Your task to perform on an android device: Open settings on Google Maps Image 0: 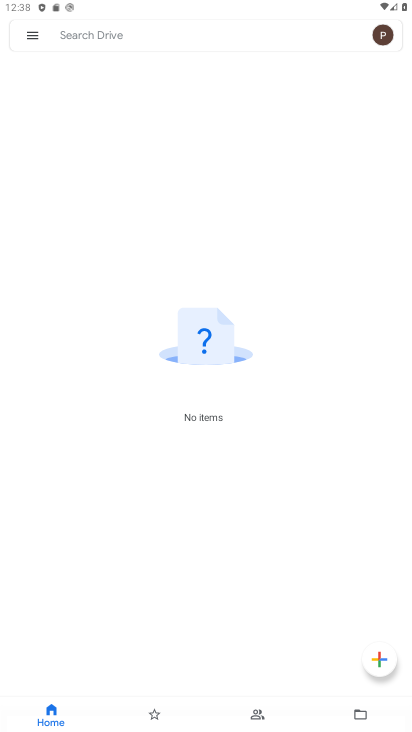
Step 0: press home button
Your task to perform on an android device: Open settings on Google Maps Image 1: 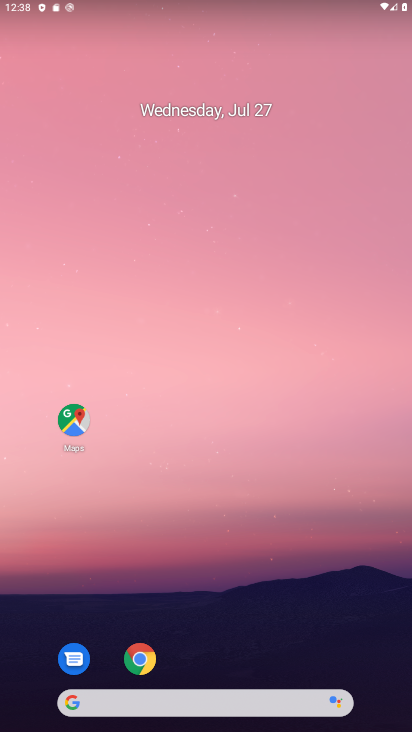
Step 1: drag from (317, 560) to (280, 63)
Your task to perform on an android device: Open settings on Google Maps Image 2: 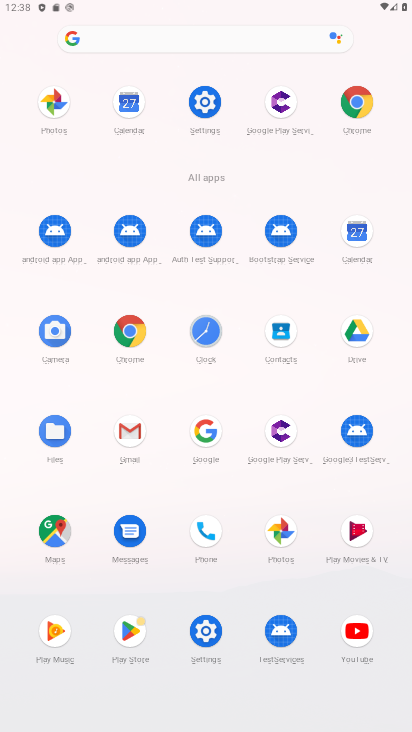
Step 2: click (52, 536)
Your task to perform on an android device: Open settings on Google Maps Image 3: 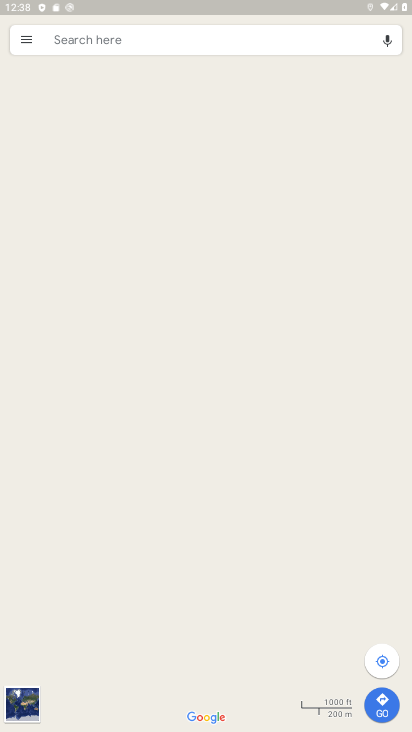
Step 3: click (25, 42)
Your task to perform on an android device: Open settings on Google Maps Image 4: 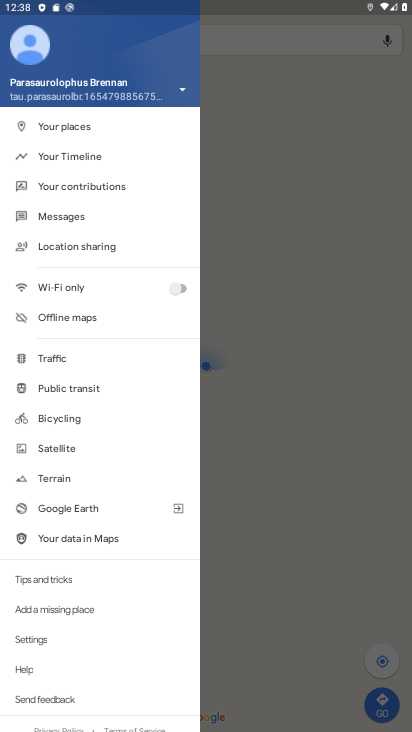
Step 4: click (18, 636)
Your task to perform on an android device: Open settings on Google Maps Image 5: 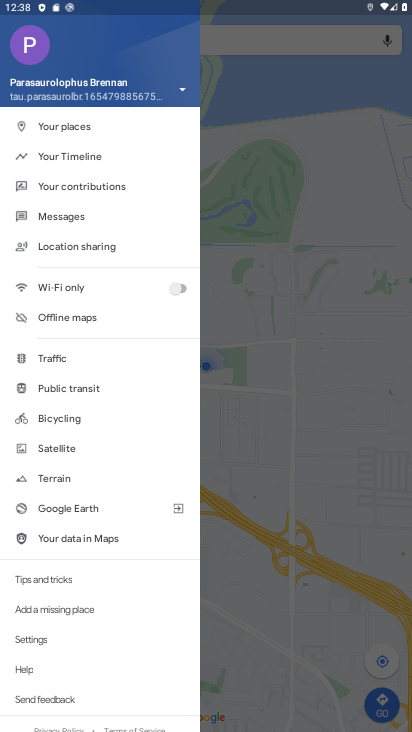
Step 5: click (34, 644)
Your task to perform on an android device: Open settings on Google Maps Image 6: 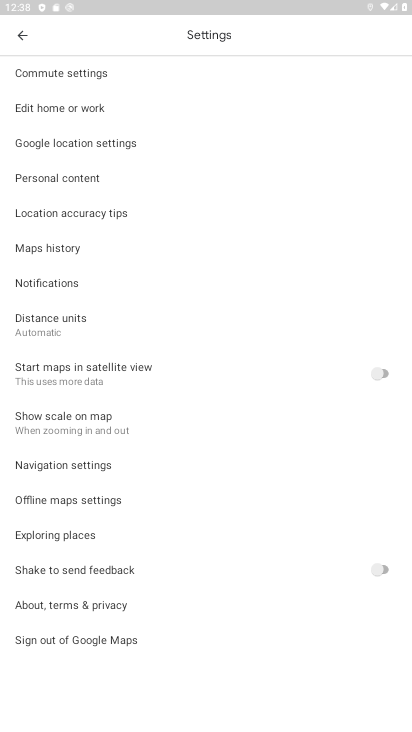
Step 6: task complete